Your task to perform on an android device: delete browsing data in the chrome app Image 0: 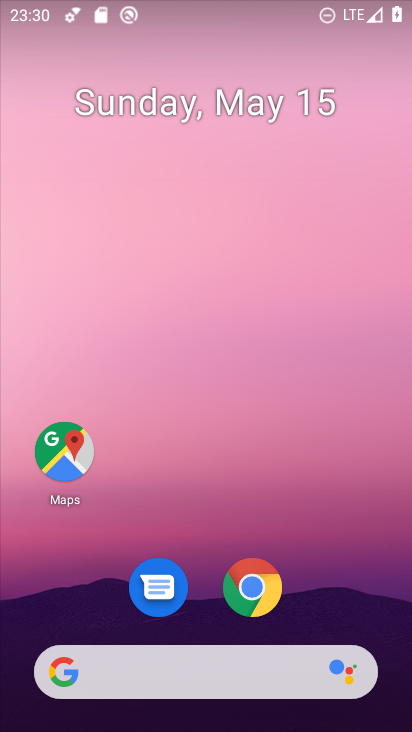
Step 0: click (265, 595)
Your task to perform on an android device: delete browsing data in the chrome app Image 1: 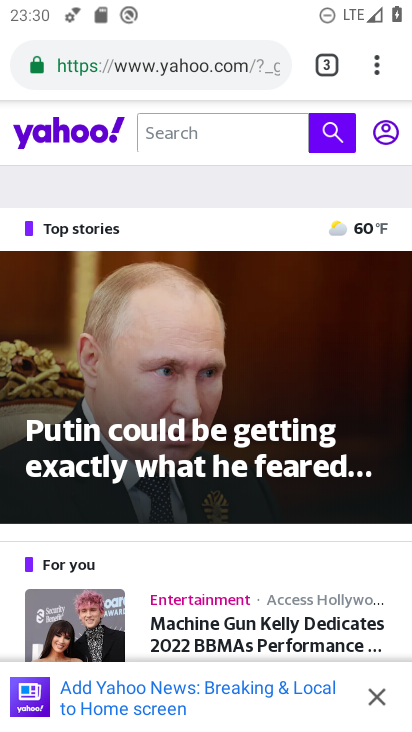
Step 1: drag from (369, 58) to (178, 356)
Your task to perform on an android device: delete browsing data in the chrome app Image 2: 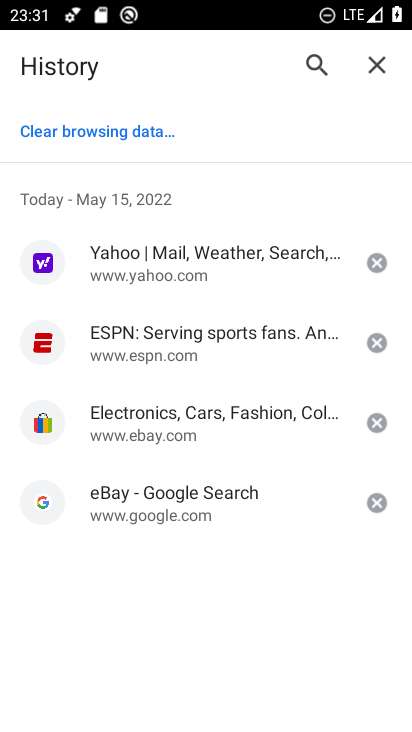
Step 2: click (127, 133)
Your task to perform on an android device: delete browsing data in the chrome app Image 3: 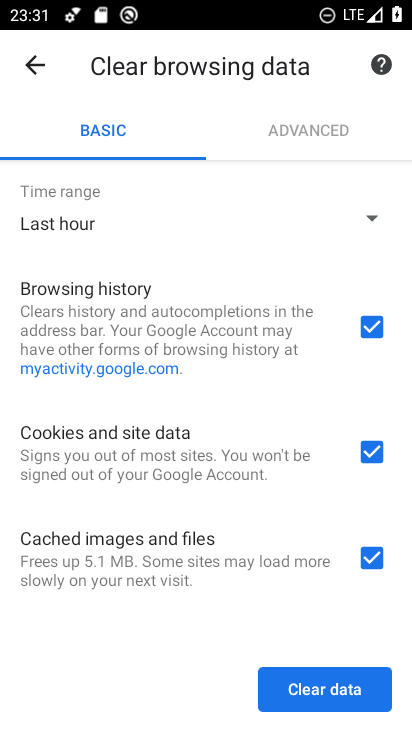
Step 3: click (304, 680)
Your task to perform on an android device: delete browsing data in the chrome app Image 4: 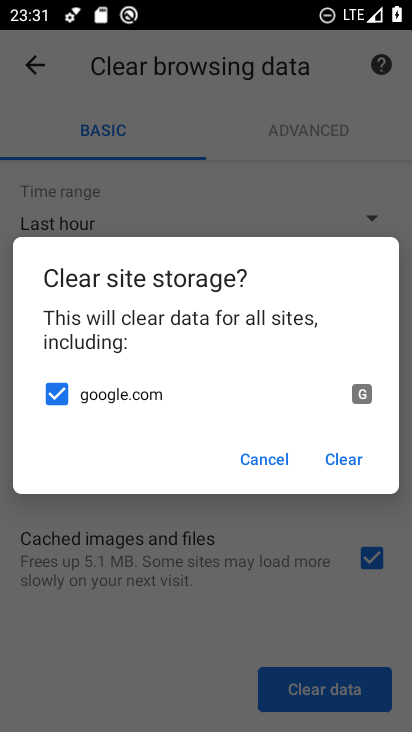
Step 4: click (350, 455)
Your task to perform on an android device: delete browsing data in the chrome app Image 5: 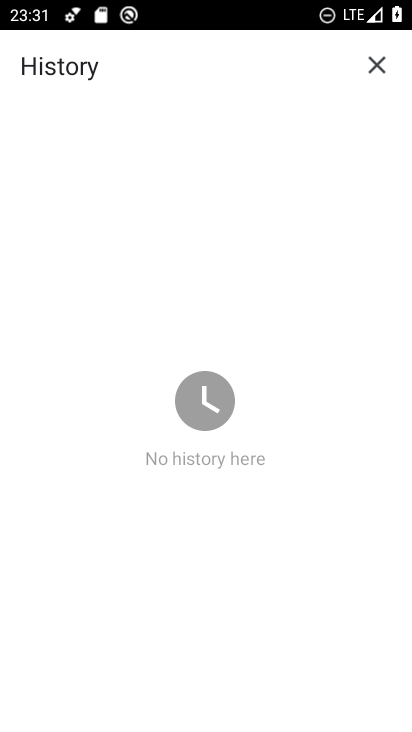
Step 5: task complete